Your task to perform on an android device: check google app version Image 0: 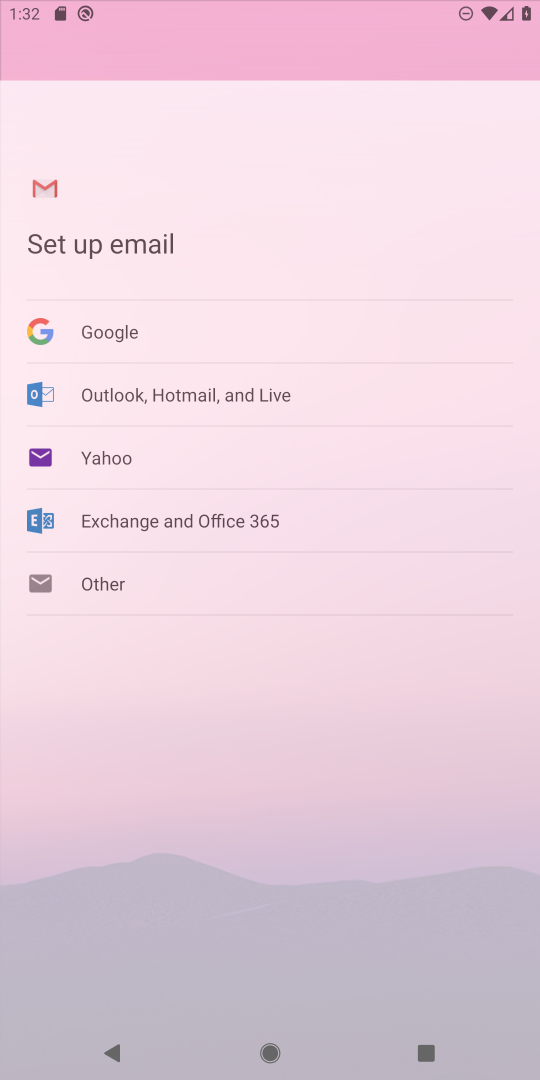
Step 0: press home button
Your task to perform on an android device: check google app version Image 1: 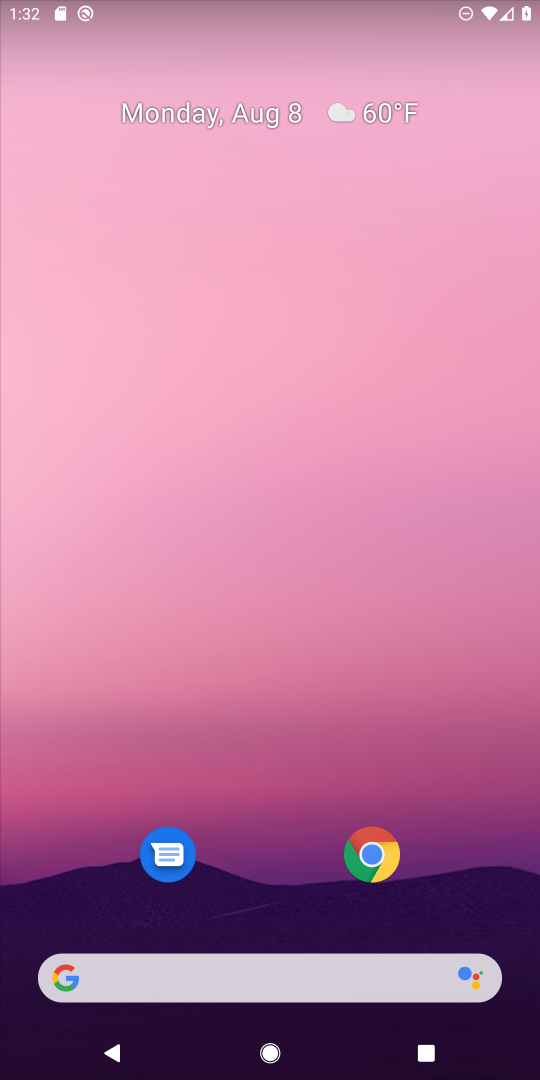
Step 1: drag from (282, 874) to (327, 138)
Your task to perform on an android device: check google app version Image 2: 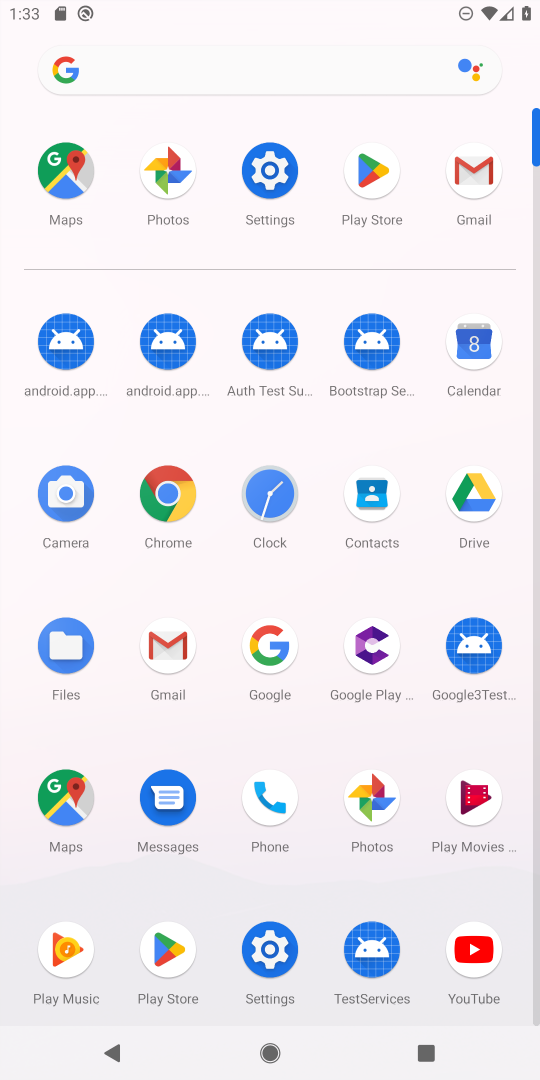
Step 2: click (264, 653)
Your task to perform on an android device: check google app version Image 3: 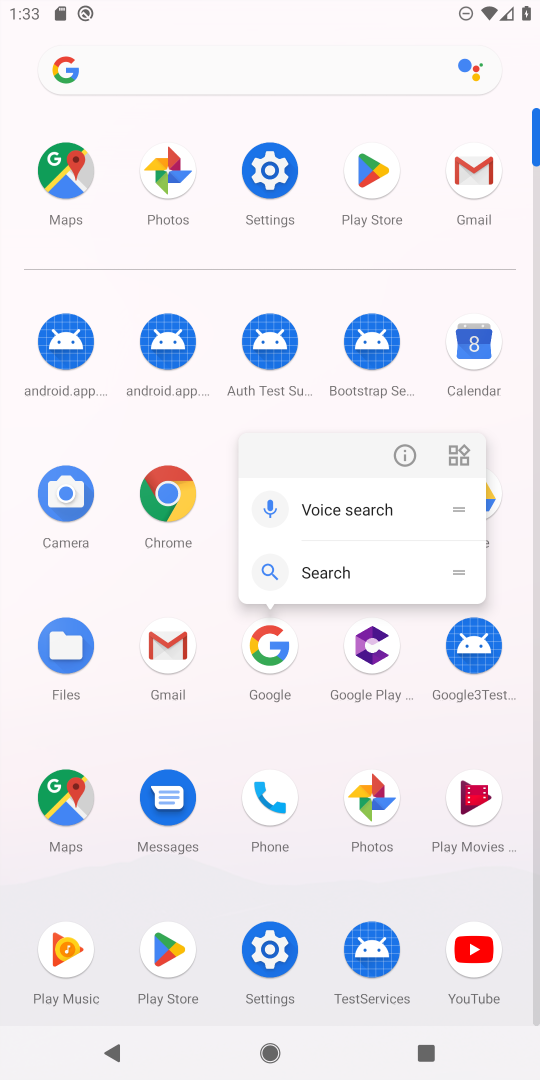
Step 3: click (405, 452)
Your task to perform on an android device: check google app version Image 4: 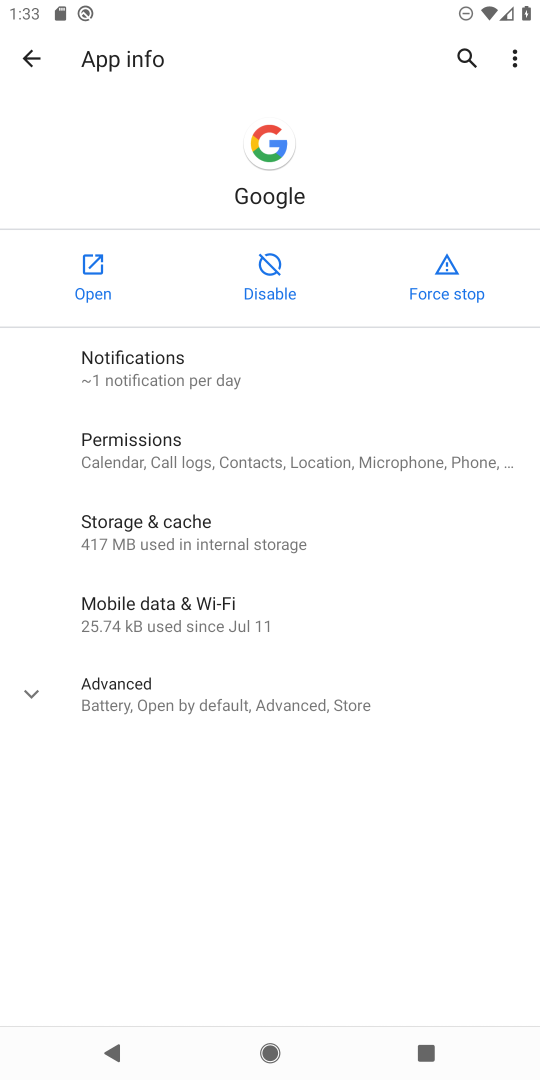
Step 4: click (31, 696)
Your task to perform on an android device: check google app version Image 5: 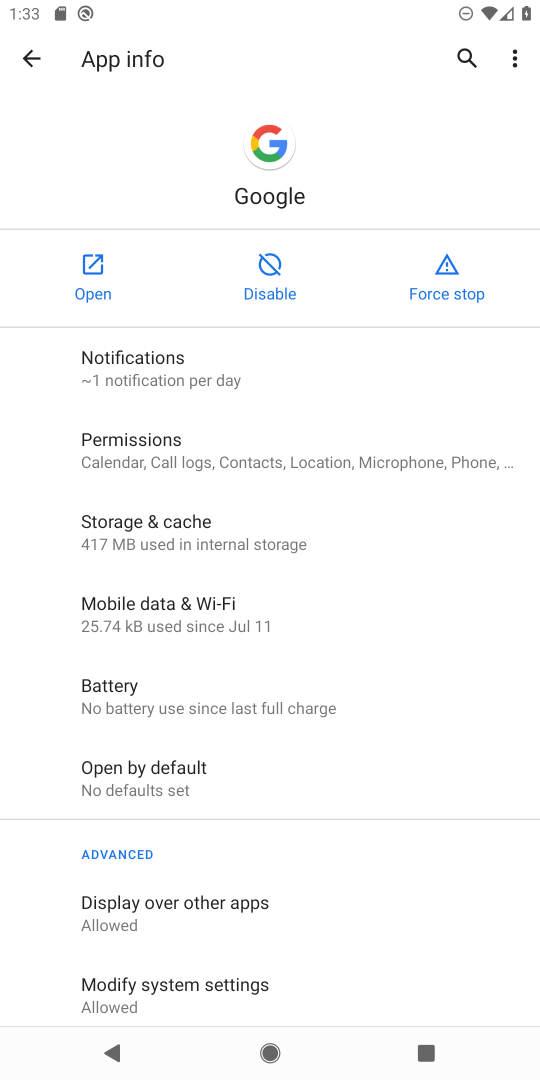
Step 5: task complete